Your task to perform on an android device: open a bookmark in the chrome app Image 0: 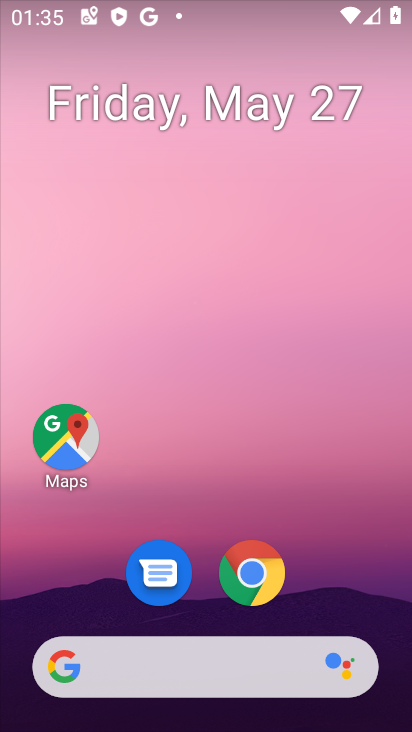
Step 0: click (238, 585)
Your task to perform on an android device: open a bookmark in the chrome app Image 1: 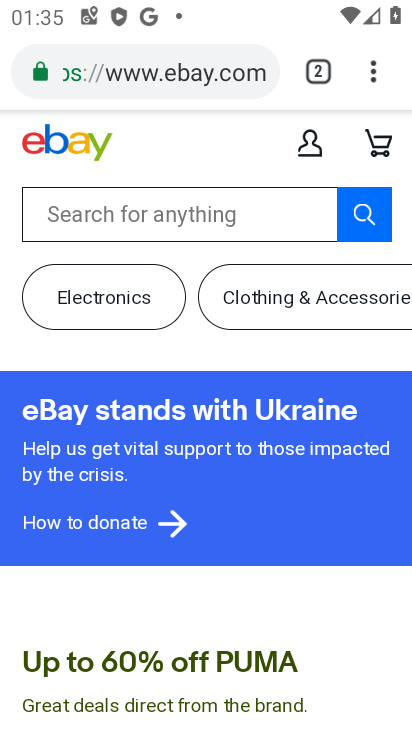
Step 1: click (372, 81)
Your task to perform on an android device: open a bookmark in the chrome app Image 2: 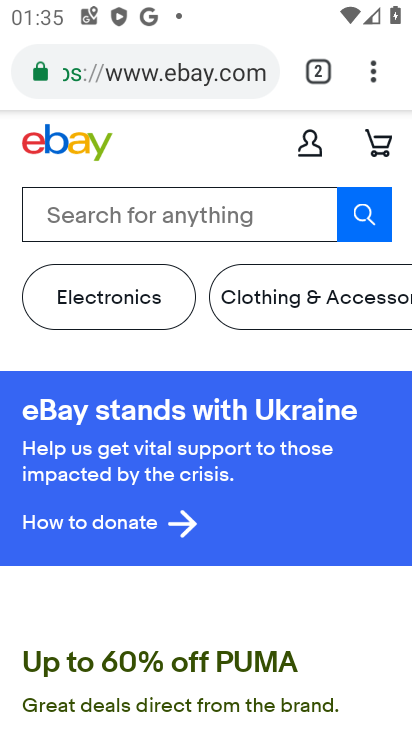
Step 2: task complete